Your task to perform on an android device: delete a single message in the gmail app Image 0: 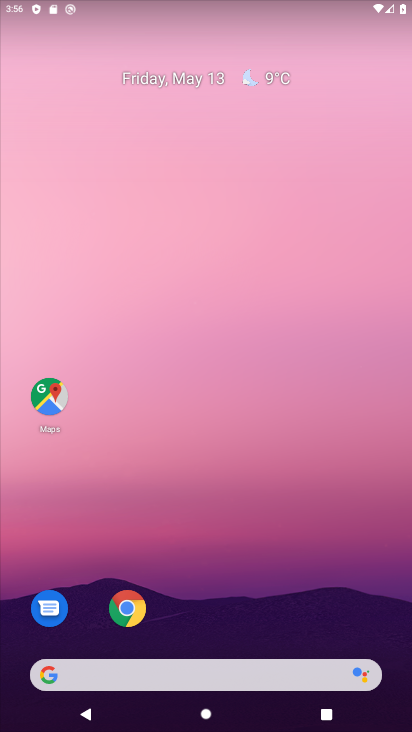
Step 0: drag from (263, 556) to (216, 88)
Your task to perform on an android device: delete a single message in the gmail app Image 1: 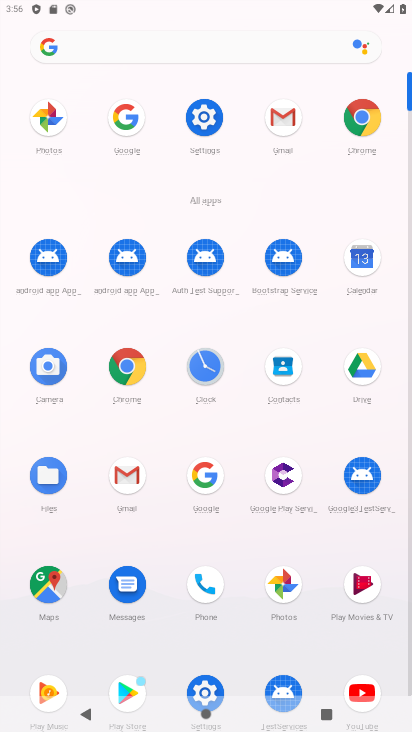
Step 1: click (118, 477)
Your task to perform on an android device: delete a single message in the gmail app Image 2: 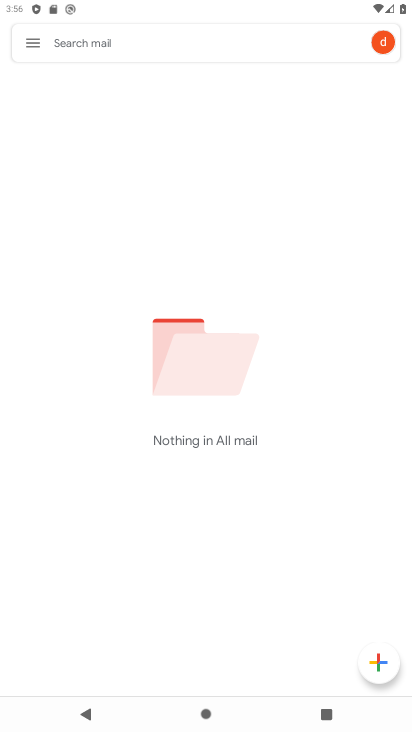
Step 2: click (27, 44)
Your task to perform on an android device: delete a single message in the gmail app Image 3: 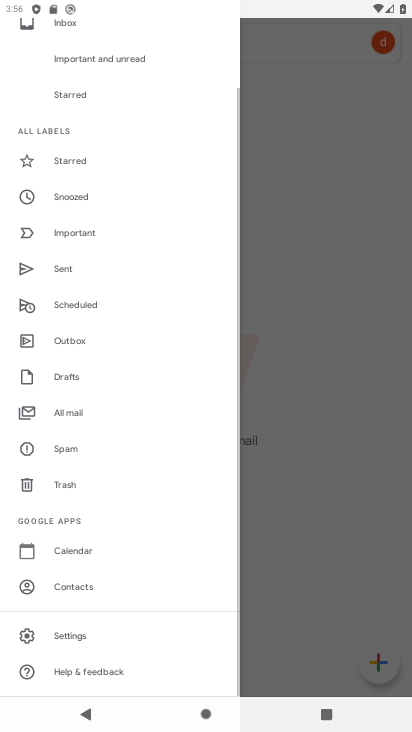
Step 3: click (86, 405)
Your task to perform on an android device: delete a single message in the gmail app Image 4: 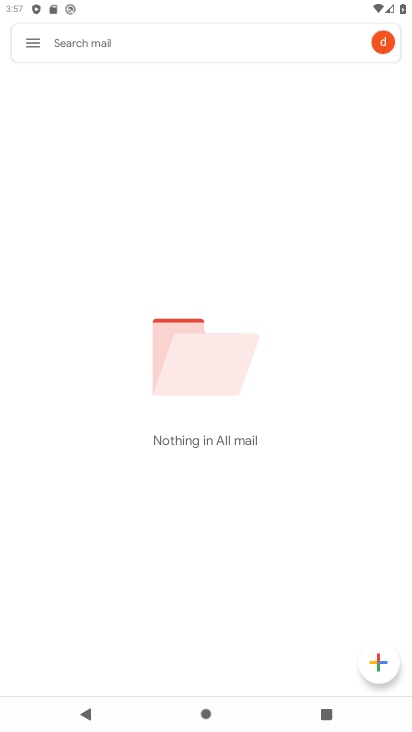
Step 4: task complete